Your task to perform on an android device: check android version Image 0: 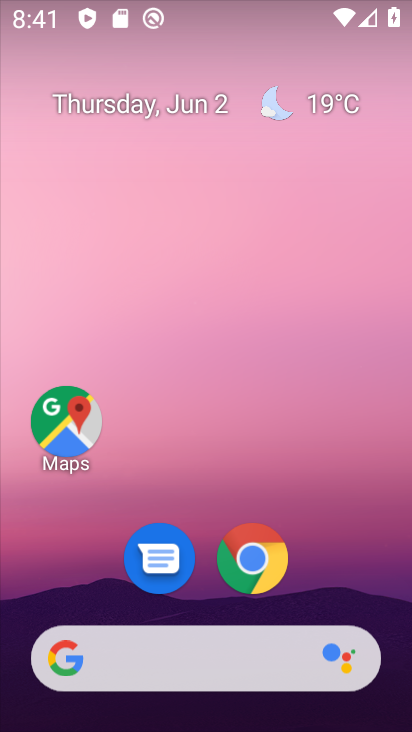
Step 0: drag from (375, 600) to (271, 70)
Your task to perform on an android device: check android version Image 1: 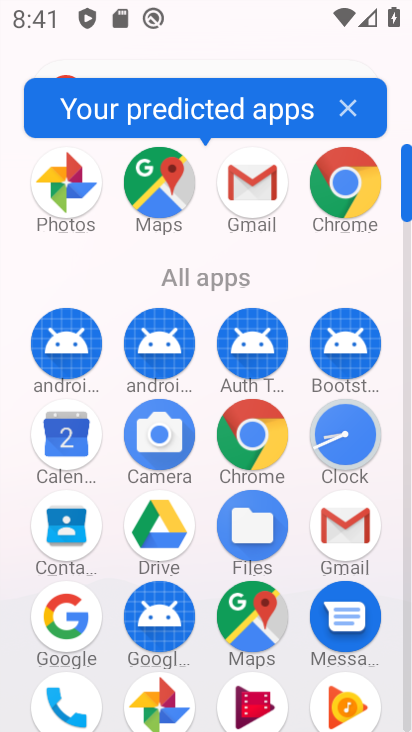
Step 1: click (407, 715)
Your task to perform on an android device: check android version Image 2: 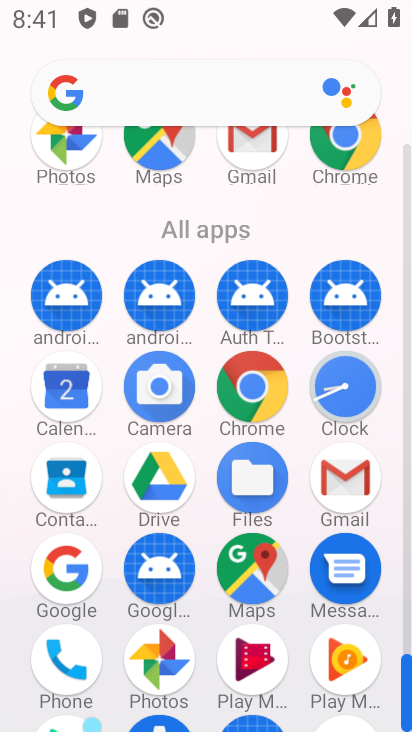
Step 2: drag from (406, 614) to (403, 567)
Your task to perform on an android device: check android version Image 3: 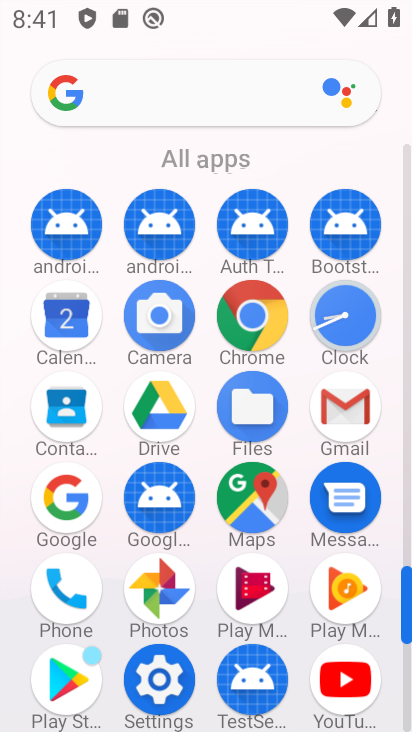
Step 3: click (159, 684)
Your task to perform on an android device: check android version Image 4: 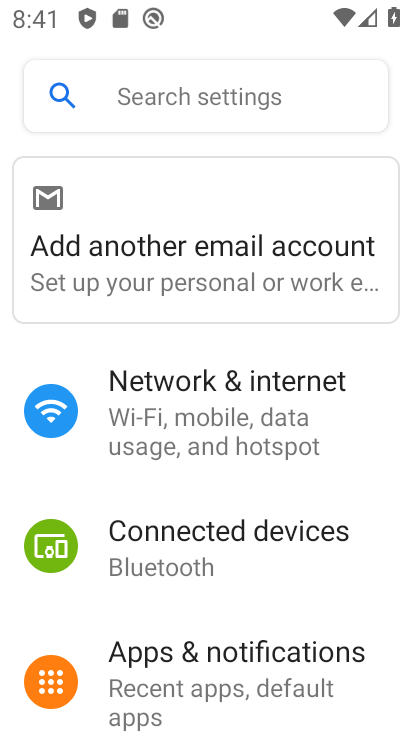
Step 4: drag from (343, 632) to (338, 193)
Your task to perform on an android device: check android version Image 5: 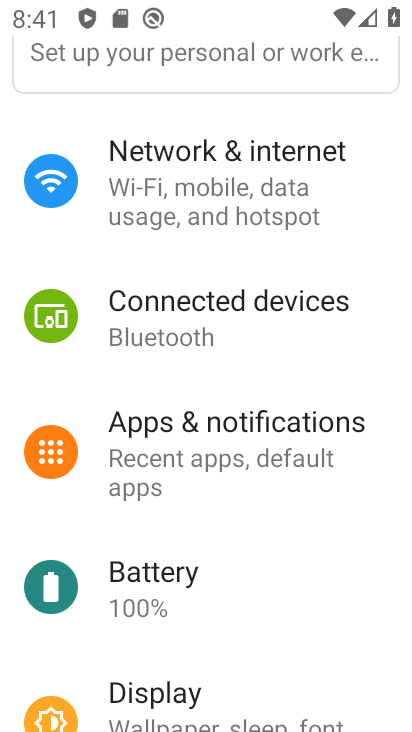
Step 5: drag from (345, 618) to (327, 159)
Your task to perform on an android device: check android version Image 6: 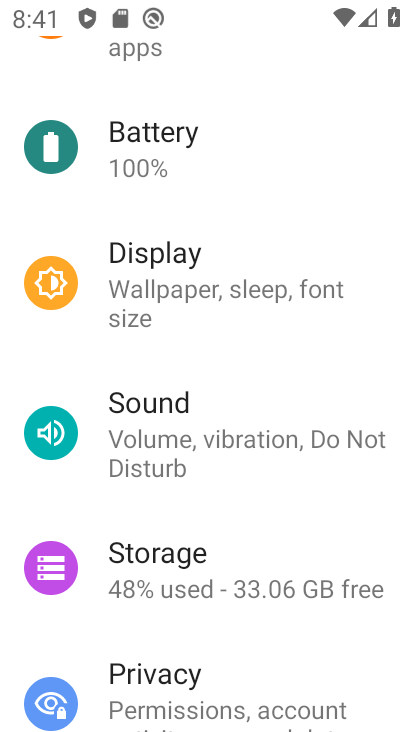
Step 6: drag from (353, 684) to (310, 124)
Your task to perform on an android device: check android version Image 7: 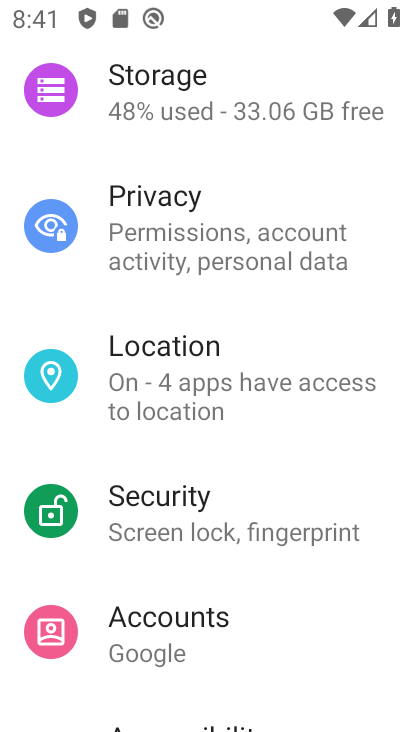
Step 7: drag from (324, 641) to (305, 92)
Your task to perform on an android device: check android version Image 8: 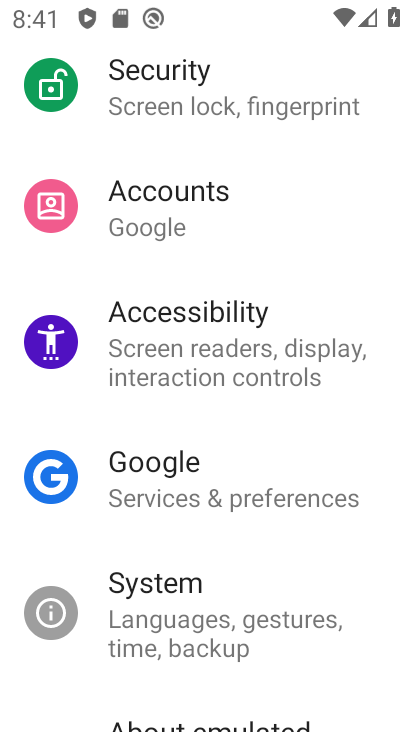
Step 8: drag from (246, 674) to (309, 190)
Your task to perform on an android device: check android version Image 9: 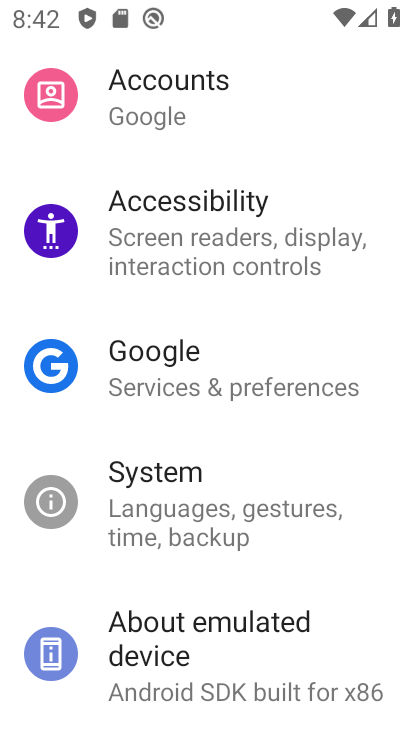
Step 9: click (172, 620)
Your task to perform on an android device: check android version Image 10: 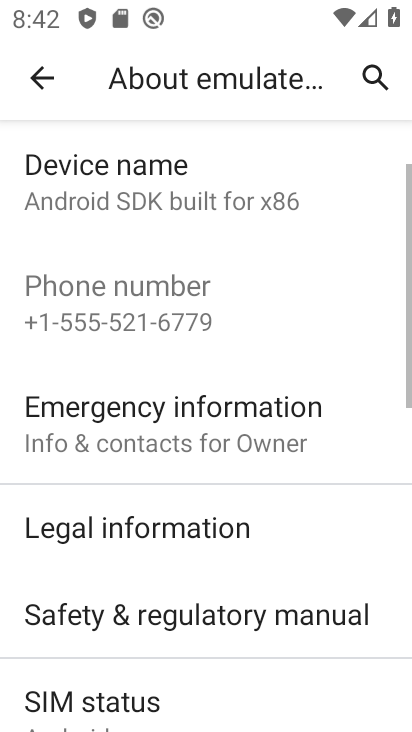
Step 10: drag from (268, 703) to (297, 240)
Your task to perform on an android device: check android version Image 11: 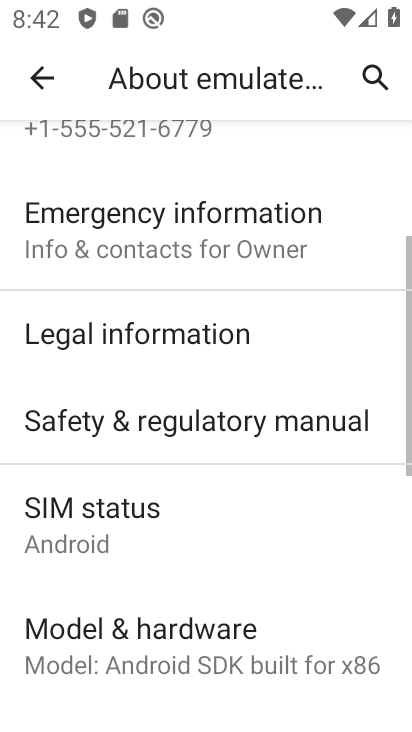
Step 11: drag from (221, 652) to (272, 98)
Your task to perform on an android device: check android version Image 12: 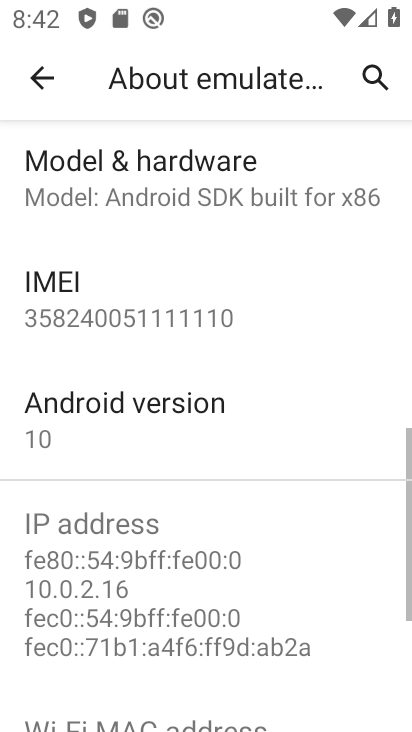
Step 12: click (112, 400)
Your task to perform on an android device: check android version Image 13: 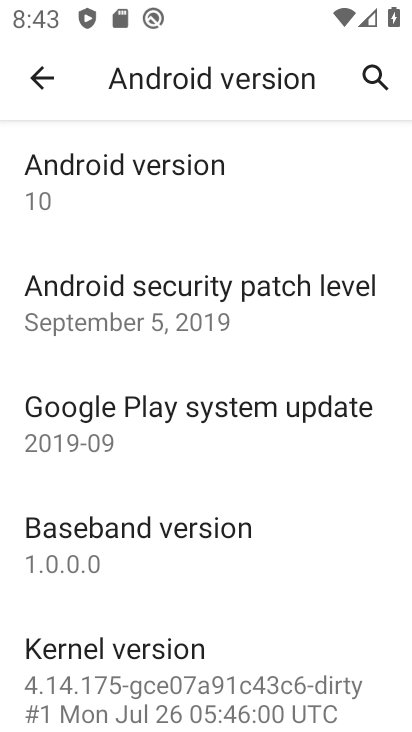
Step 13: task complete